Your task to perform on an android device: Open ESPN.com Image 0: 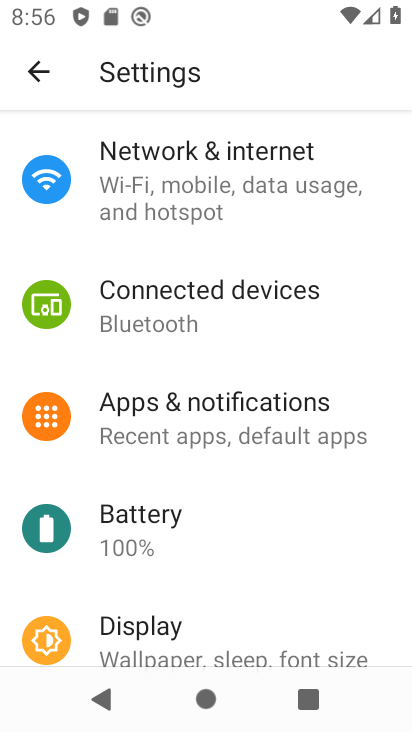
Step 0: press home button
Your task to perform on an android device: Open ESPN.com Image 1: 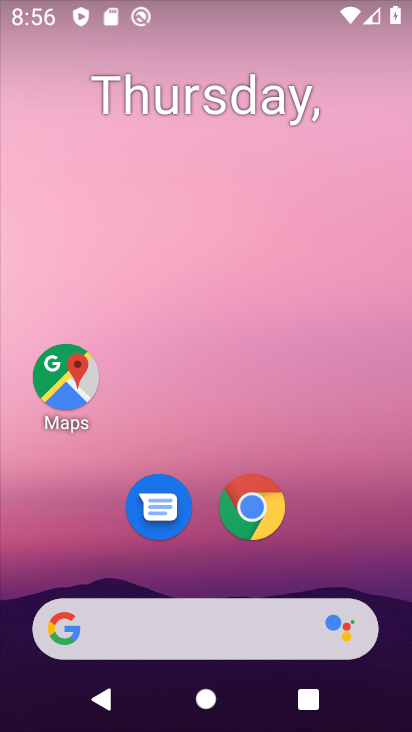
Step 1: click (268, 530)
Your task to perform on an android device: Open ESPN.com Image 2: 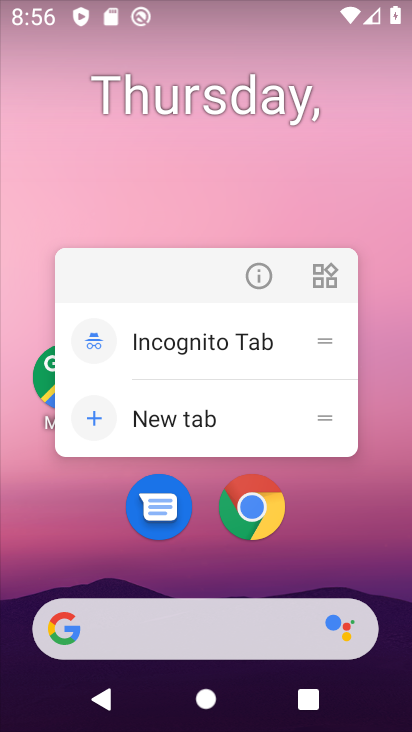
Step 2: click (238, 527)
Your task to perform on an android device: Open ESPN.com Image 3: 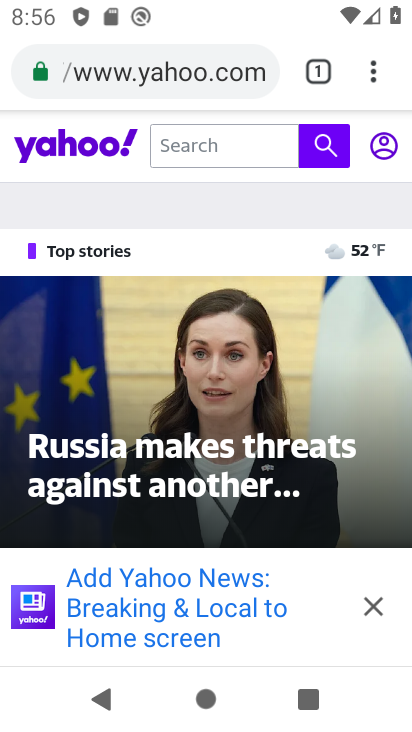
Step 3: click (111, 68)
Your task to perform on an android device: Open ESPN.com Image 4: 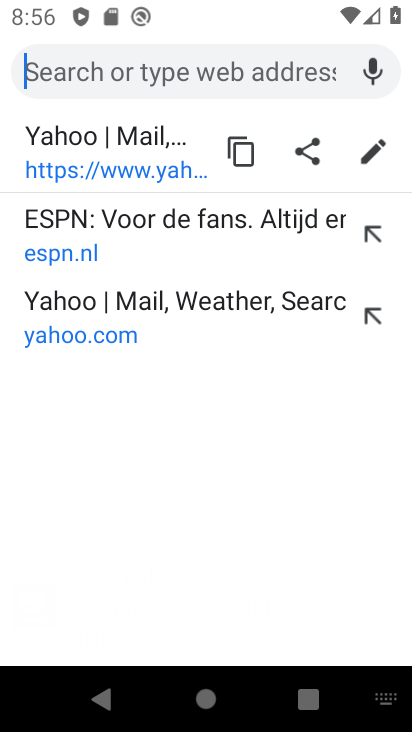
Step 4: type "ESPN.com"
Your task to perform on an android device: Open ESPN.com Image 5: 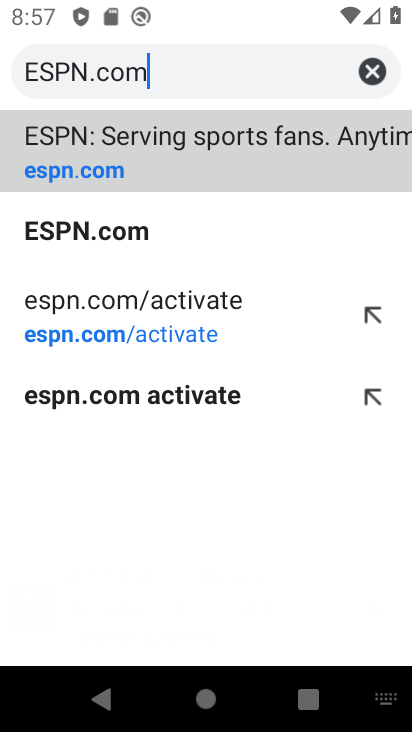
Step 5: click (155, 240)
Your task to perform on an android device: Open ESPN.com Image 6: 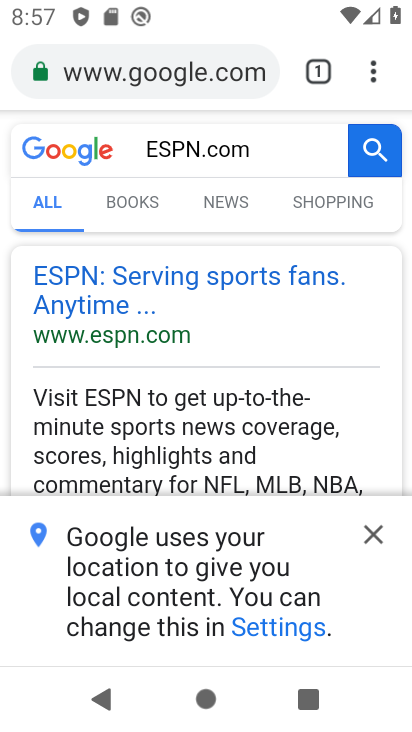
Step 6: task complete